Your task to perform on an android device: toggle translation in the chrome app Image 0: 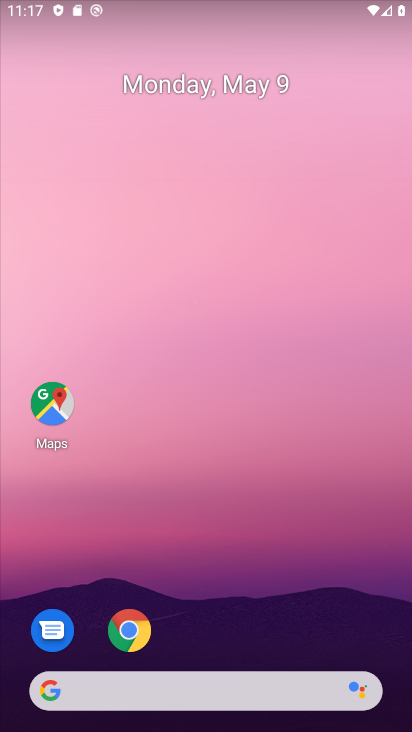
Step 0: drag from (227, 554) to (174, 23)
Your task to perform on an android device: toggle translation in the chrome app Image 1: 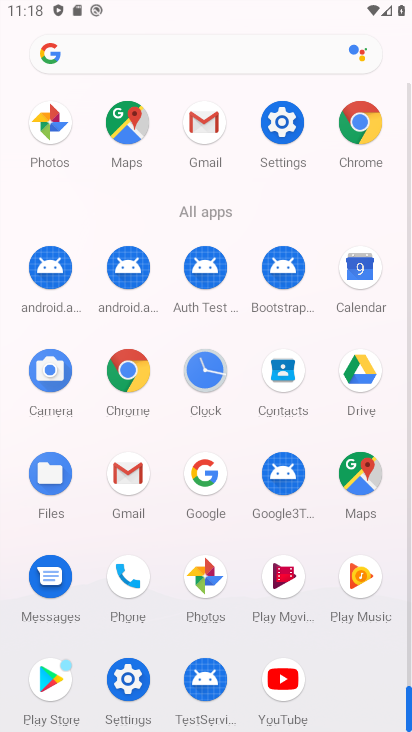
Step 1: drag from (14, 600) to (14, 215)
Your task to perform on an android device: toggle translation in the chrome app Image 2: 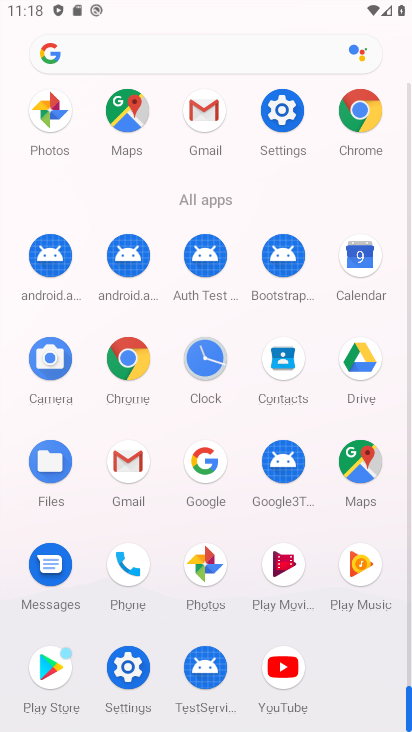
Step 2: click (126, 359)
Your task to perform on an android device: toggle translation in the chrome app Image 3: 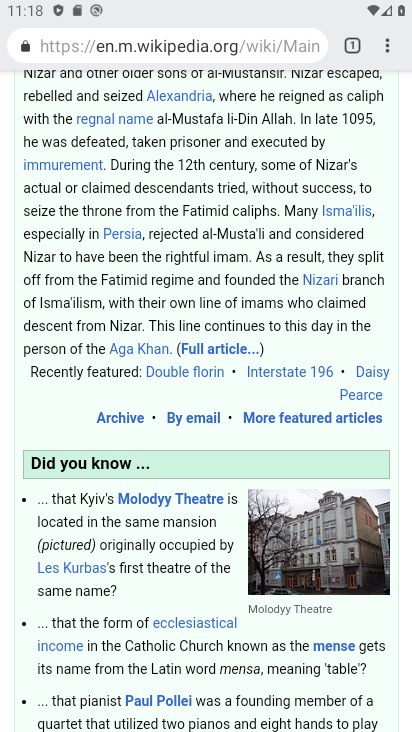
Step 3: drag from (389, 47) to (248, 545)
Your task to perform on an android device: toggle translation in the chrome app Image 4: 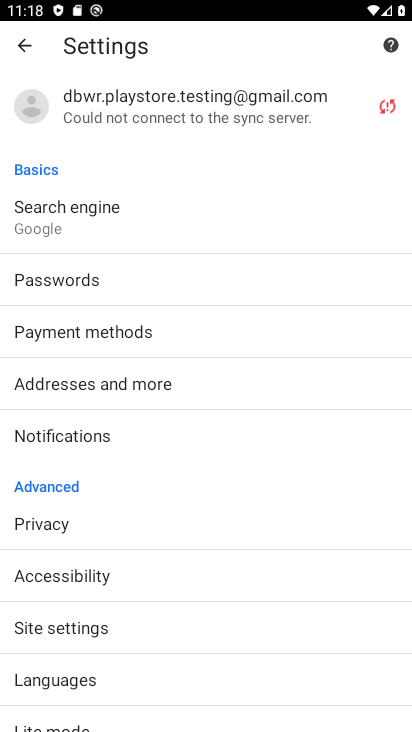
Step 4: drag from (247, 585) to (212, 189)
Your task to perform on an android device: toggle translation in the chrome app Image 5: 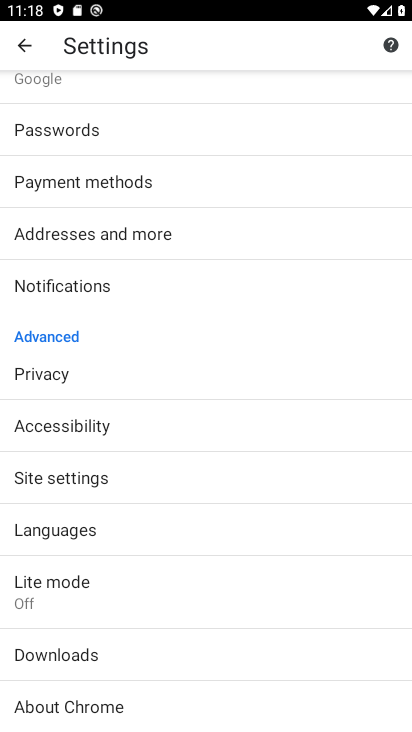
Step 5: click (110, 530)
Your task to perform on an android device: toggle translation in the chrome app Image 6: 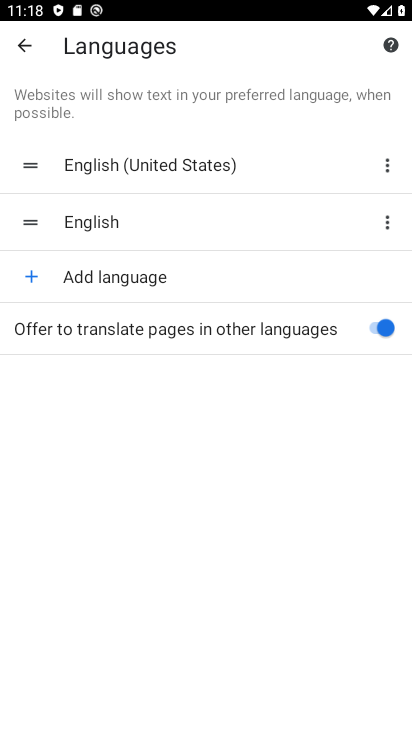
Step 6: click (369, 329)
Your task to perform on an android device: toggle translation in the chrome app Image 7: 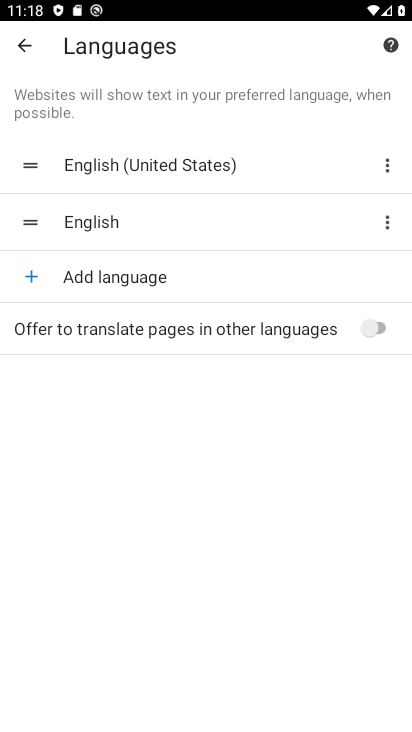
Step 7: task complete